Your task to perform on an android device: change text size in settings app Image 0: 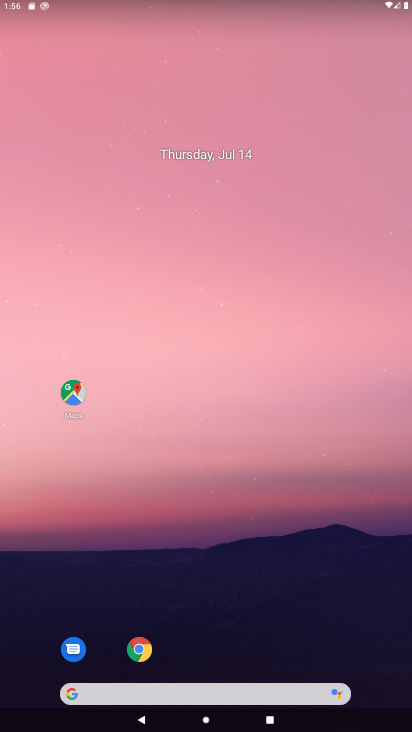
Step 0: press home button
Your task to perform on an android device: change text size in settings app Image 1: 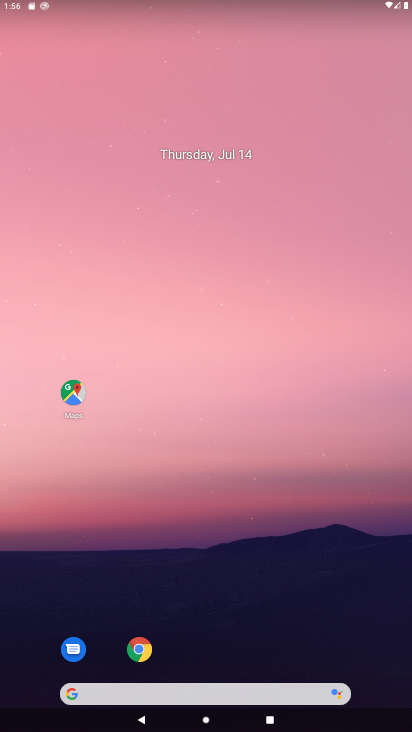
Step 1: drag from (394, 566) to (305, 40)
Your task to perform on an android device: change text size in settings app Image 2: 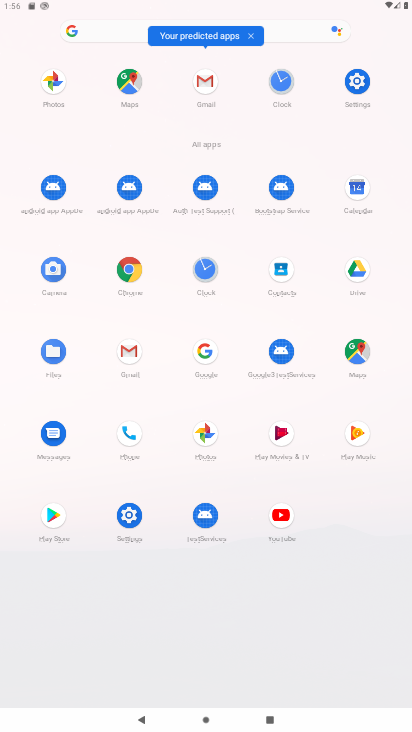
Step 2: click (125, 517)
Your task to perform on an android device: change text size in settings app Image 3: 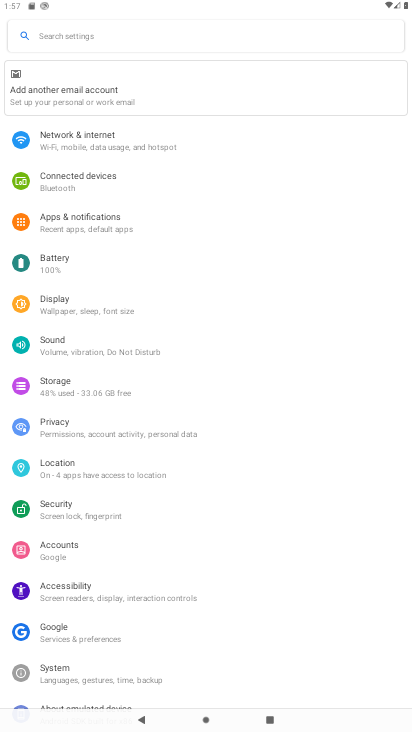
Step 3: click (77, 298)
Your task to perform on an android device: change text size in settings app Image 4: 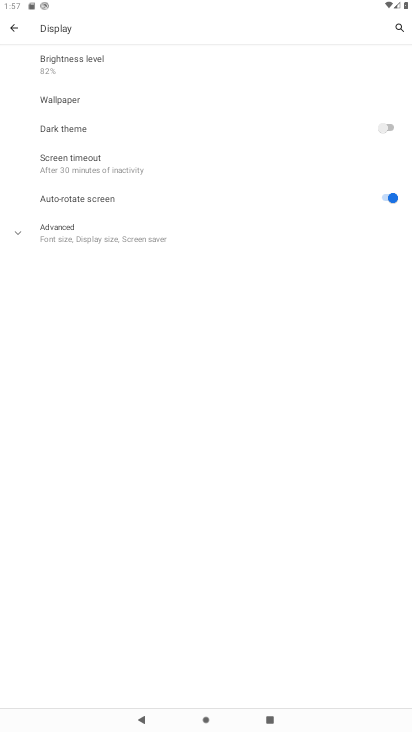
Step 4: click (52, 226)
Your task to perform on an android device: change text size in settings app Image 5: 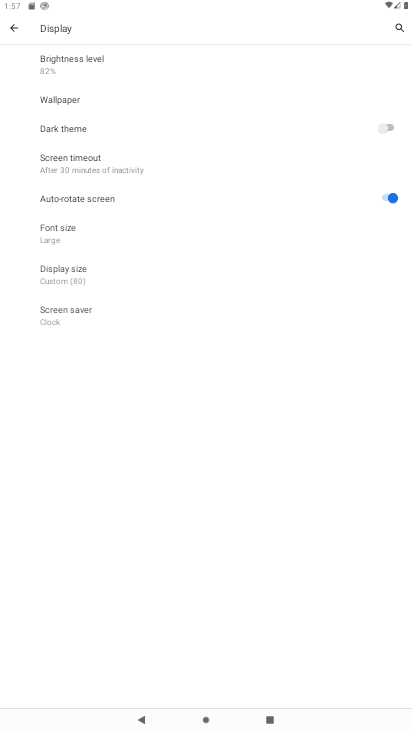
Step 5: click (52, 226)
Your task to perform on an android device: change text size in settings app Image 6: 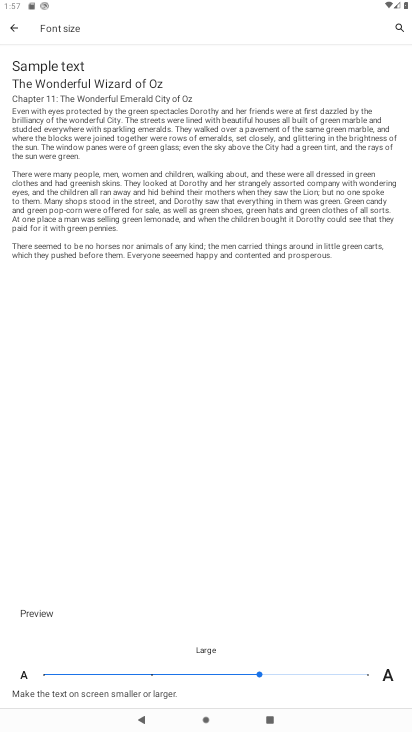
Step 6: click (391, 665)
Your task to perform on an android device: change text size in settings app Image 7: 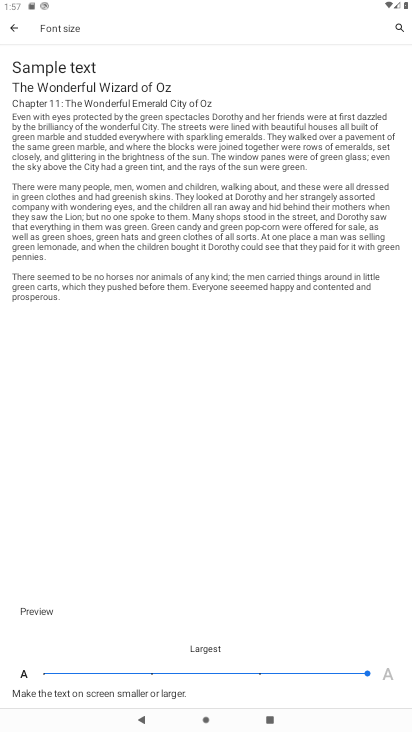
Step 7: click (402, 662)
Your task to perform on an android device: change text size in settings app Image 8: 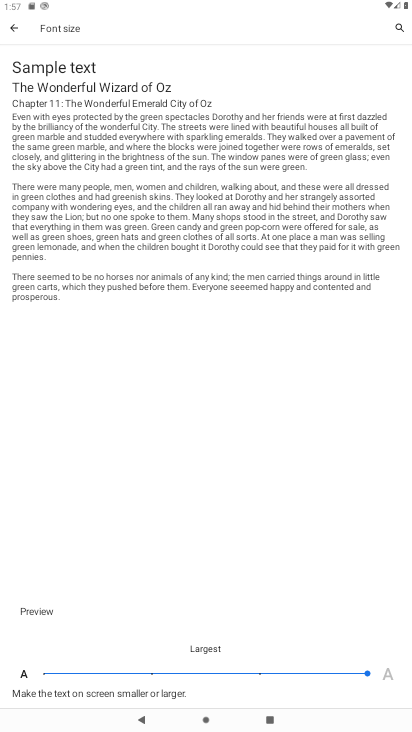
Step 8: task complete